Your task to perform on an android device: Open a new incognito tab in Chrome Image 0: 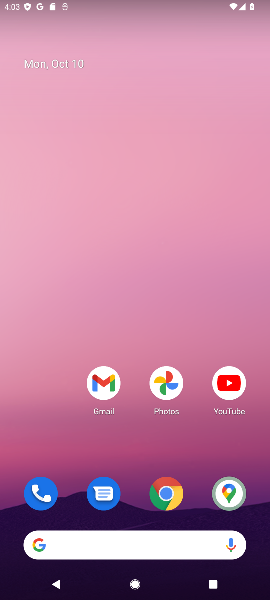
Step 0: click (167, 493)
Your task to perform on an android device: Open a new incognito tab in Chrome Image 1: 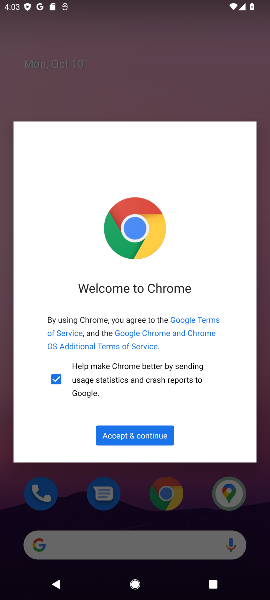
Step 1: click (162, 437)
Your task to perform on an android device: Open a new incognito tab in Chrome Image 2: 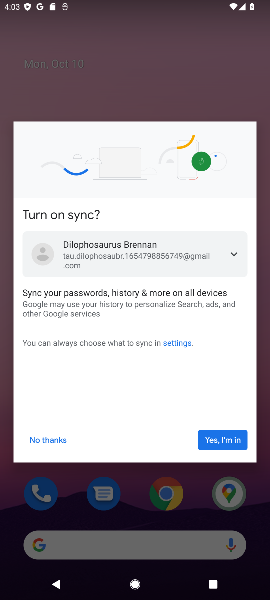
Step 2: click (244, 444)
Your task to perform on an android device: Open a new incognito tab in Chrome Image 3: 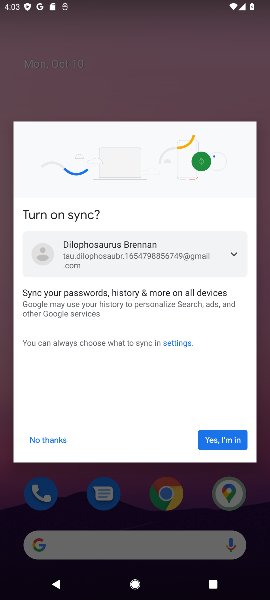
Step 3: click (244, 444)
Your task to perform on an android device: Open a new incognito tab in Chrome Image 4: 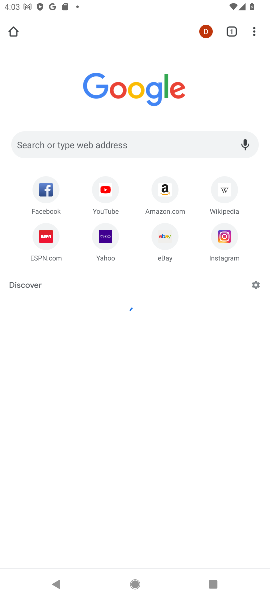
Step 4: click (254, 31)
Your task to perform on an android device: Open a new incognito tab in Chrome Image 5: 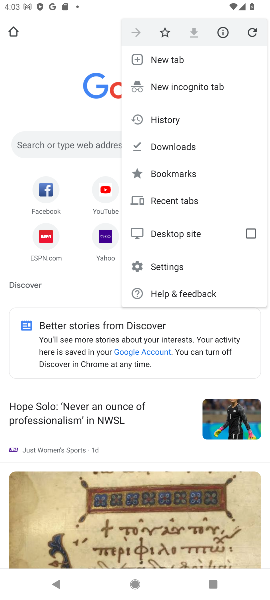
Step 5: click (208, 91)
Your task to perform on an android device: Open a new incognito tab in Chrome Image 6: 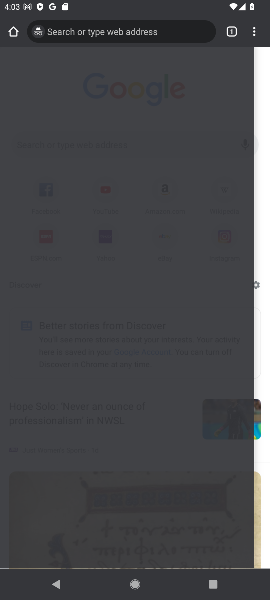
Step 6: task complete